Your task to perform on an android device: Open Google Maps and go to "Timeline" Image 0: 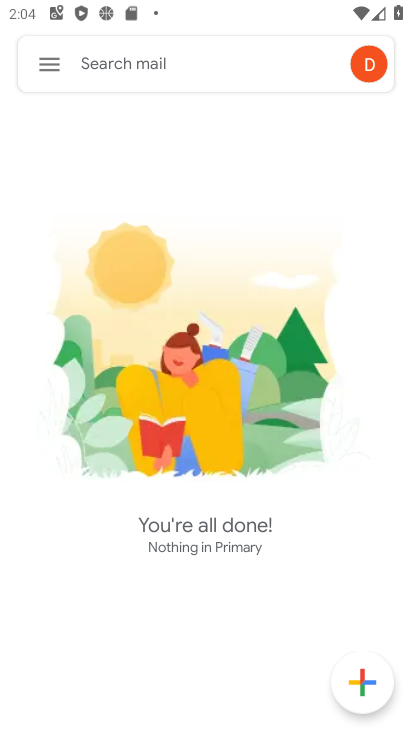
Step 0: press home button
Your task to perform on an android device: Open Google Maps and go to "Timeline" Image 1: 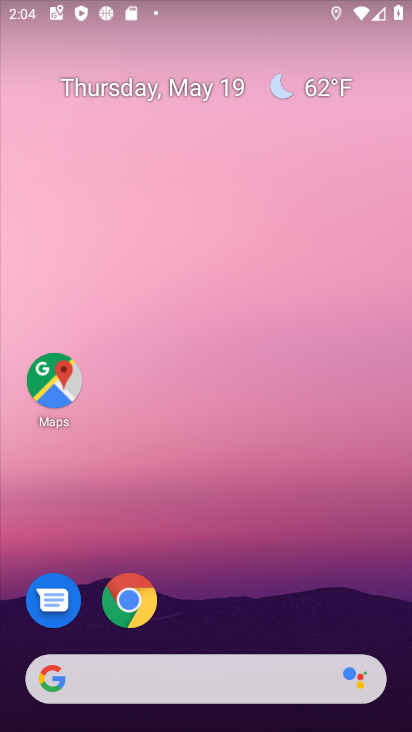
Step 1: drag from (31, 504) to (148, 259)
Your task to perform on an android device: Open Google Maps and go to "Timeline" Image 2: 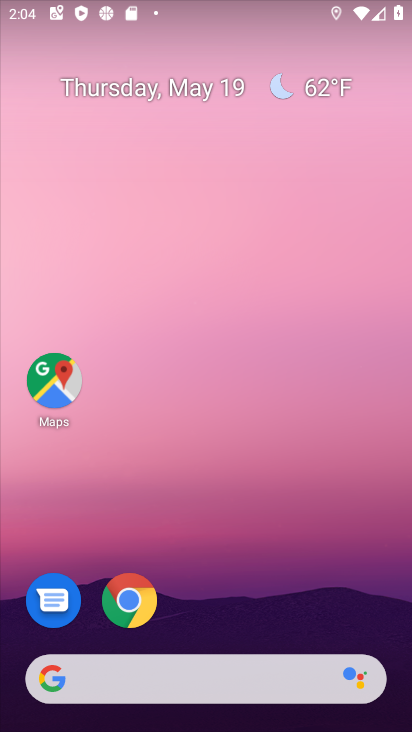
Step 2: drag from (22, 563) to (279, 176)
Your task to perform on an android device: Open Google Maps and go to "Timeline" Image 3: 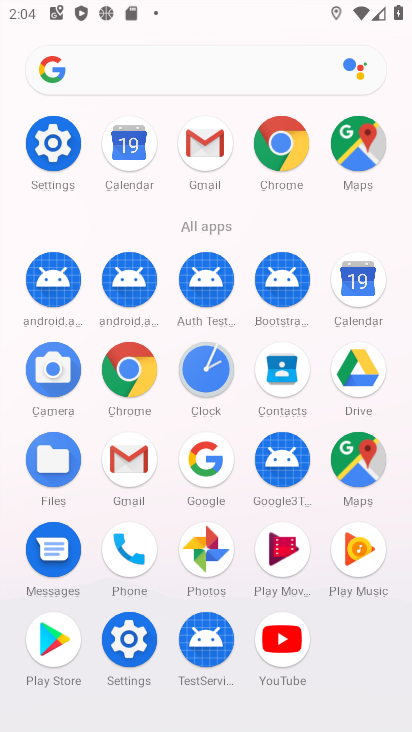
Step 3: click (369, 454)
Your task to perform on an android device: Open Google Maps and go to "Timeline" Image 4: 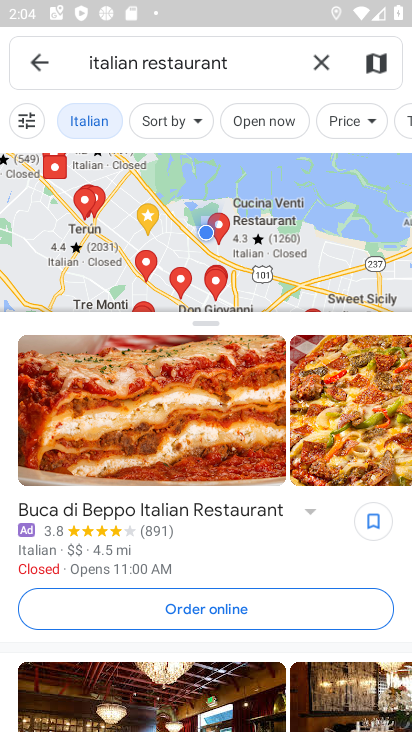
Step 4: click (323, 61)
Your task to perform on an android device: Open Google Maps and go to "Timeline" Image 5: 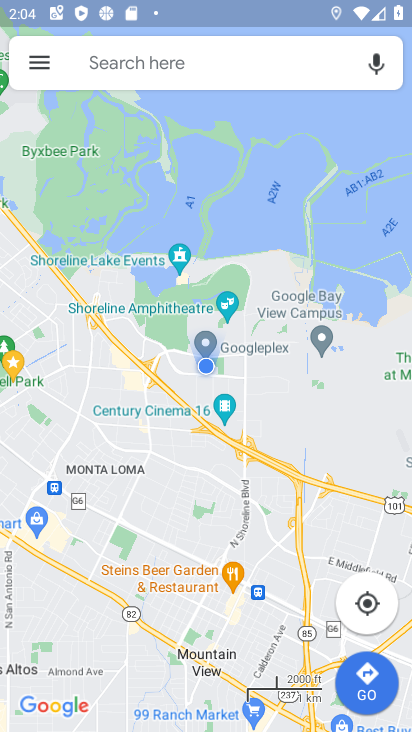
Step 5: click (35, 66)
Your task to perform on an android device: Open Google Maps and go to "Timeline" Image 6: 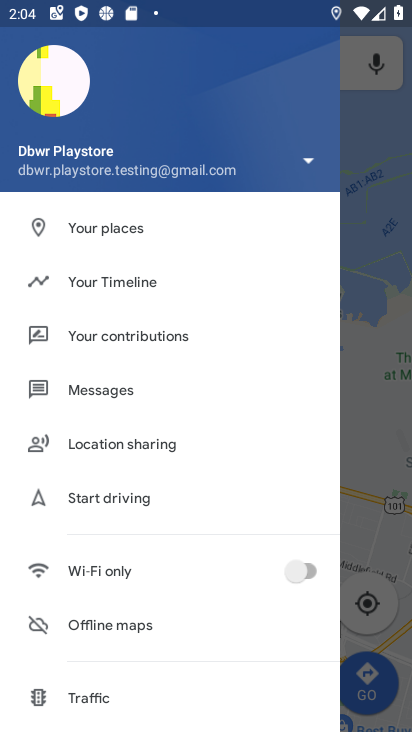
Step 6: click (81, 288)
Your task to perform on an android device: Open Google Maps and go to "Timeline" Image 7: 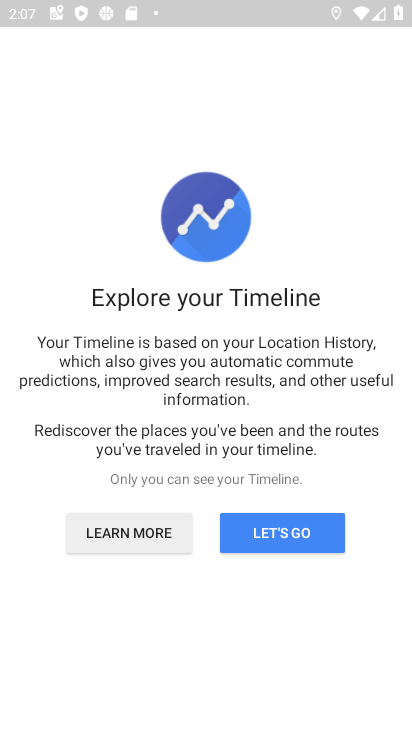
Step 7: click (162, 536)
Your task to perform on an android device: Open Google Maps and go to "Timeline" Image 8: 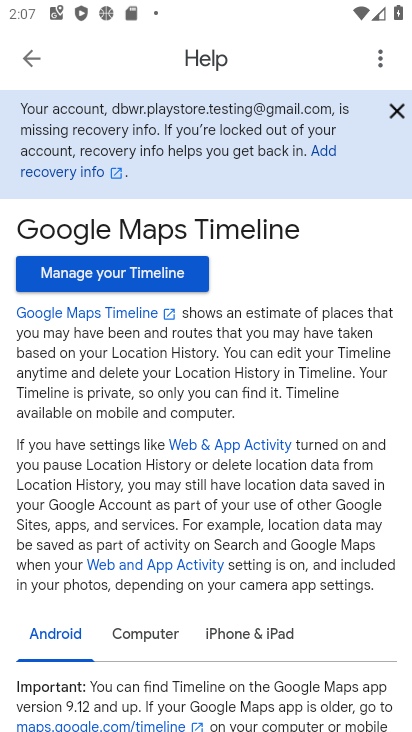
Step 8: press back button
Your task to perform on an android device: Open Google Maps and go to "Timeline" Image 9: 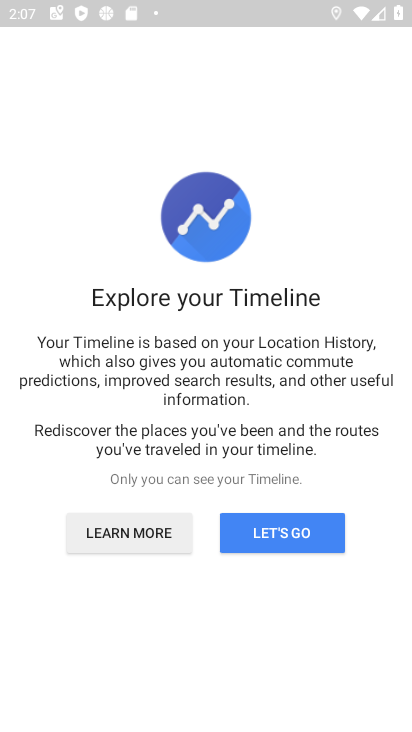
Step 9: click (287, 539)
Your task to perform on an android device: Open Google Maps and go to "Timeline" Image 10: 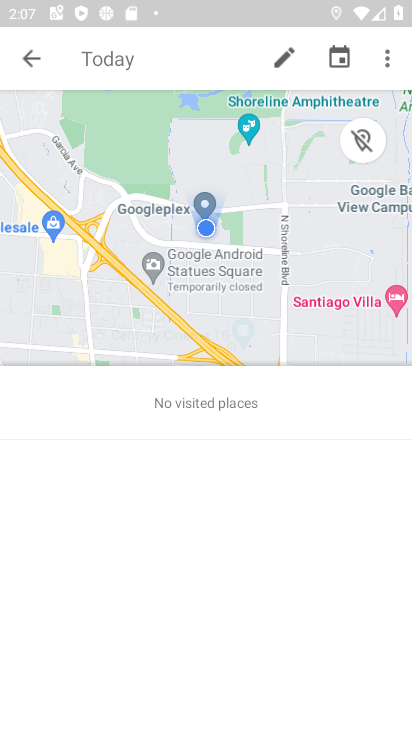
Step 10: task complete